Your task to perform on an android device: find which apps use the phone's location Image 0: 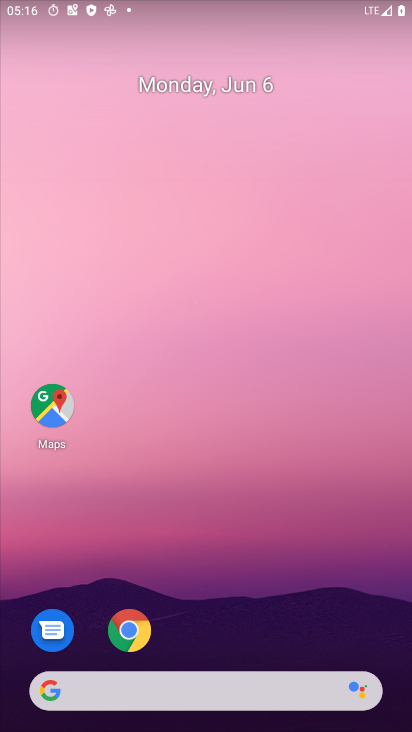
Step 0: drag from (271, 640) to (308, 135)
Your task to perform on an android device: find which apps use the phone's location Image 1: 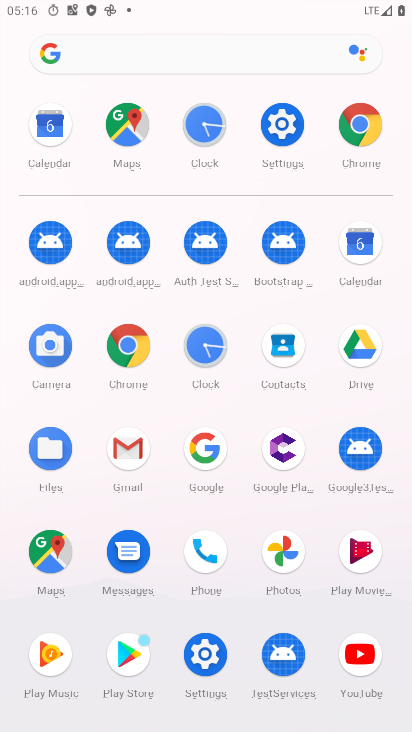
Step 1: click (201, 543)
Your task to perform on an android device: find which apps use the phone's location Image 2: 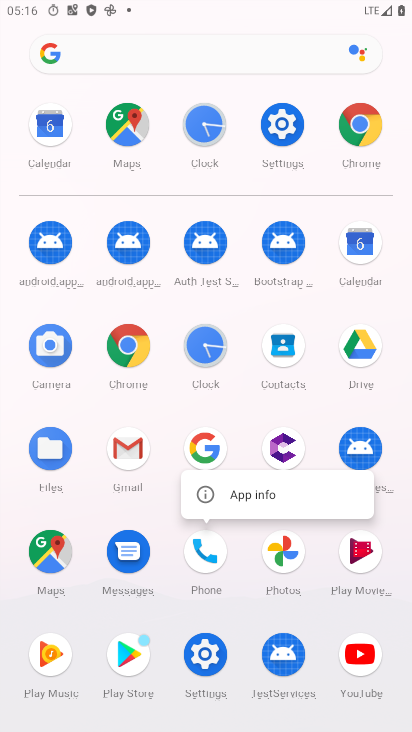
Step 2: click (249, 492)
Your task to perform on an android device: find which apps use the phone's location Image 3: 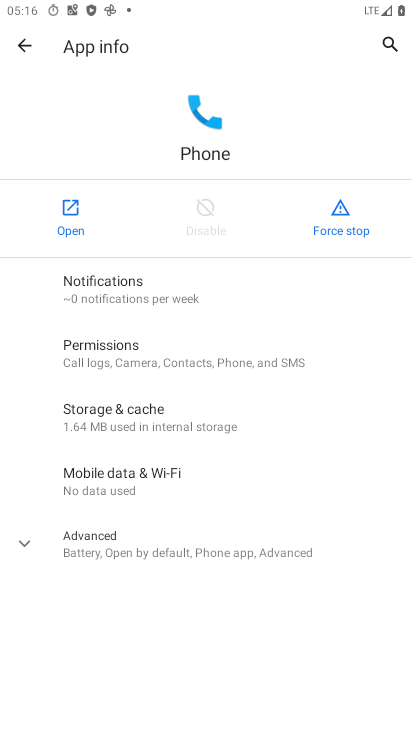
Step 3: click (126, 347)
Your task to perform on an android device: find which apps use the phone's location Image 4: 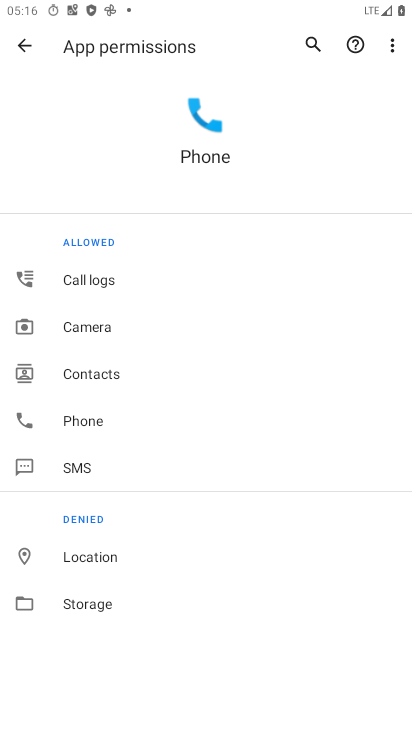
Step 4: click (82, 554)
Your task to perform on an android device: find which apps use the phone's location Image 5: 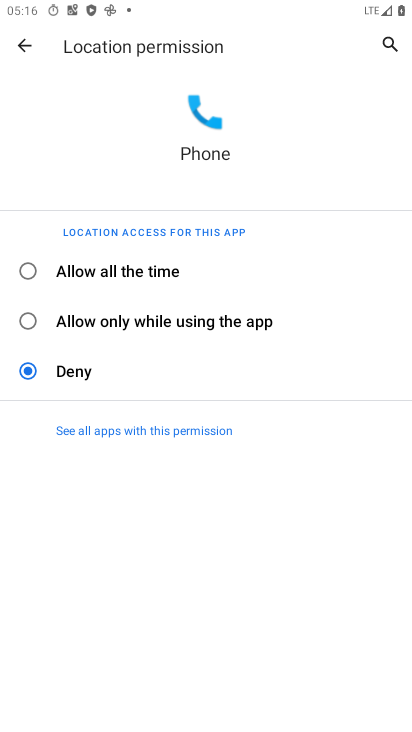
Step 5: task complete